Your task to perform on an android device: turn off javascript in the chrome app Image 0: 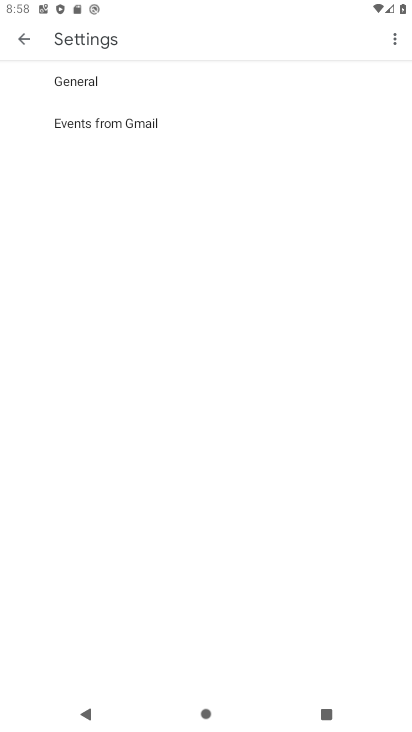
Step 0: press home button
Your task to perform on an android device: turn off javascript in the chrome app Image 1: 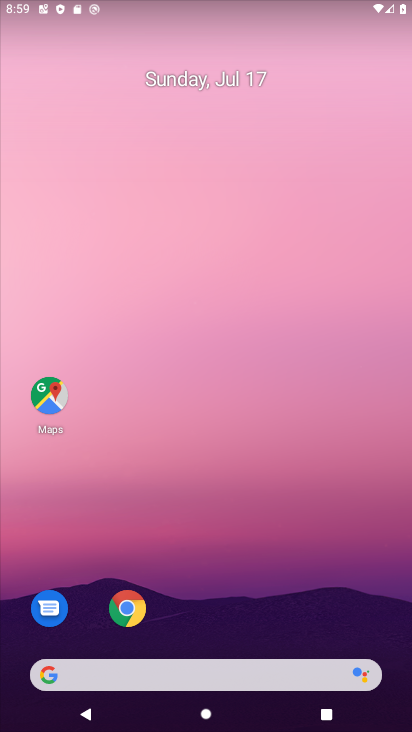
Step 1: click (129, 607)
Your task to perform on an android device: turn off javascript in the chrome app Image 2: 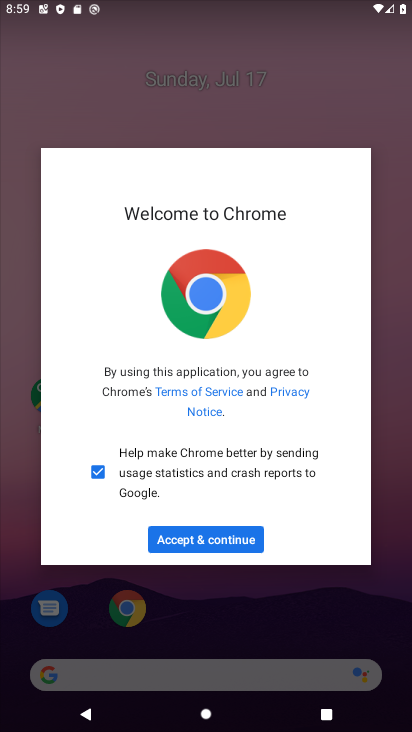
Step 2: click (196, 534)
Your task to perform on an android device: turn off javascript in the chrome app Image 3: 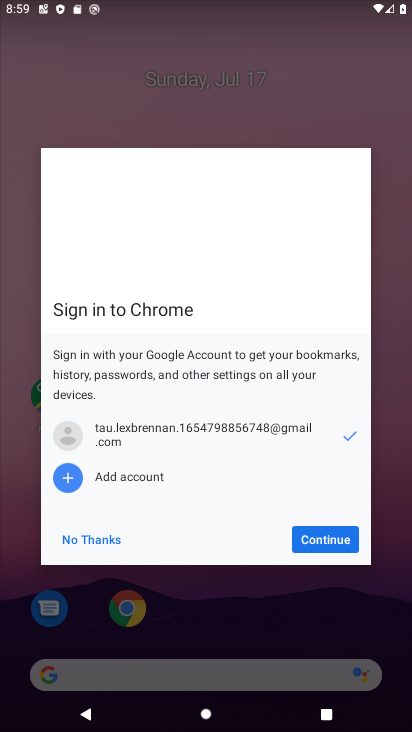
Step 3: click (317, 541)
Your task to perform on an android device: turn off javascript in the chrome app Image 4: 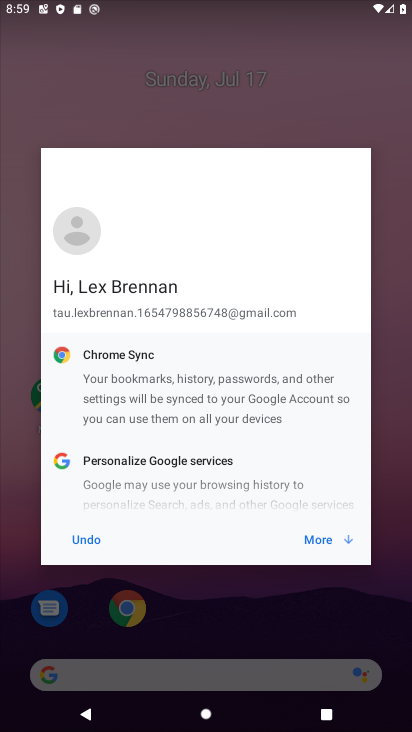
Step 4: click (317, 541)
Your task to perform on an android device: turn off javascript in the chrome app Image 5: 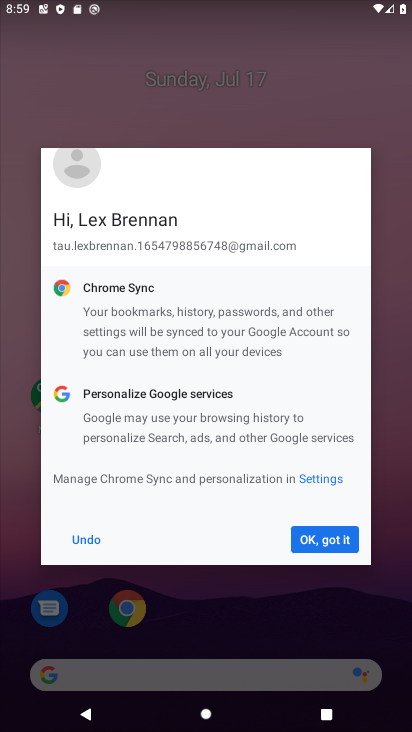
Step 5: click (326, 546)
Your task to perform on an android device: turn off javascript in the chrome app Image 6: 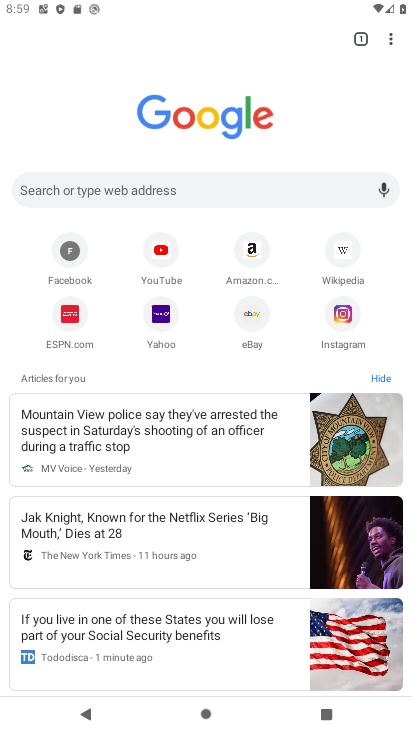
Step 6: click (389, 38)
Your task to perform on an android device: turn off javascript in the chrome app Image 7: 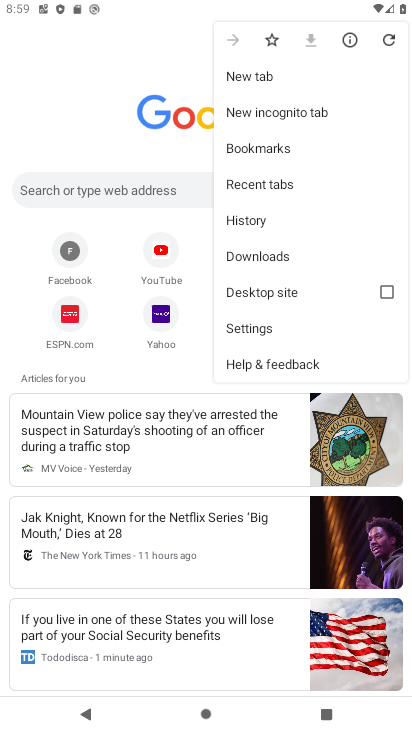
Step 7: click (259, 331)
Your task to perform on an android device: turn off javascript in the chrome app Image 8: 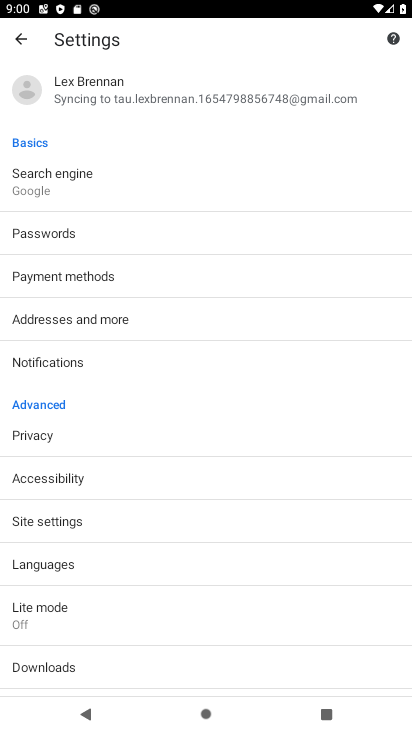
Step 8: click (49, 522)
Your task to perform on an android device: turn off javascript in the chrome app Image 9: 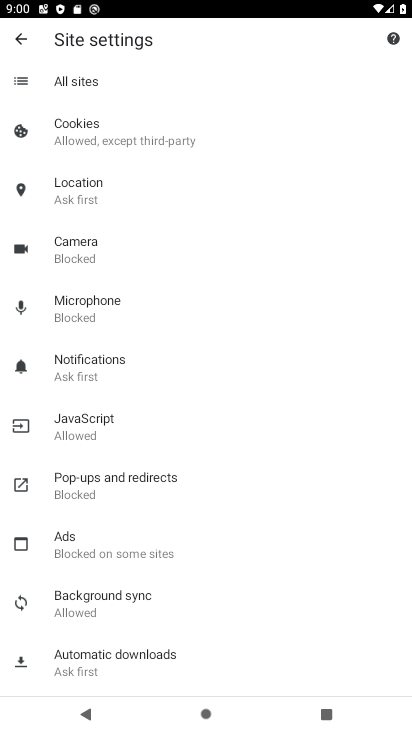
Step 9: click (83, 436)
Your task to perform on an android device: turn off javascript in the chrome app Image 10: 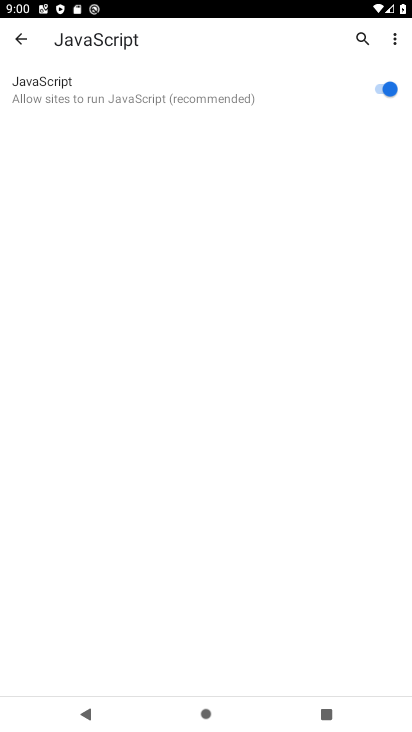
Step 10: click (387, 89)
Your task to perform on an android device: turn off javascript in the chrome app Image 11: 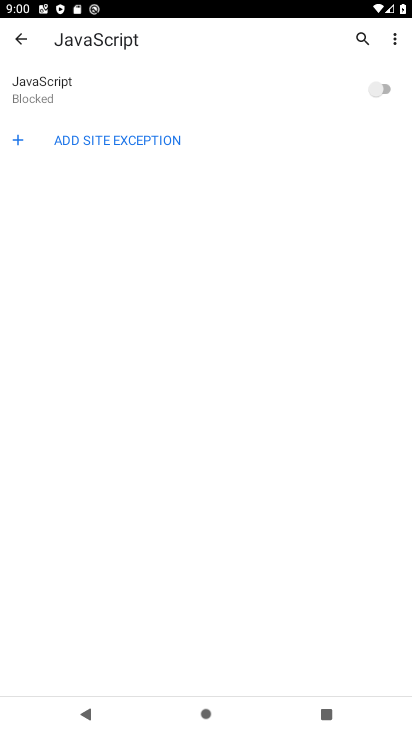
Step 11: task complete